Your task to perform on an android device: open the mobile data screen to see how much data has been used Image 0: 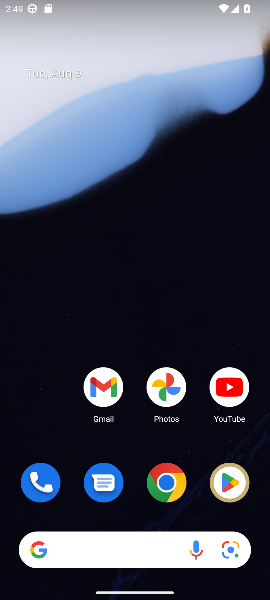
Step 0: drag from (137, 439) to (137, 97)
Your task to perform on an android device: open the mobile data screen to see how much data has been used Image 1: 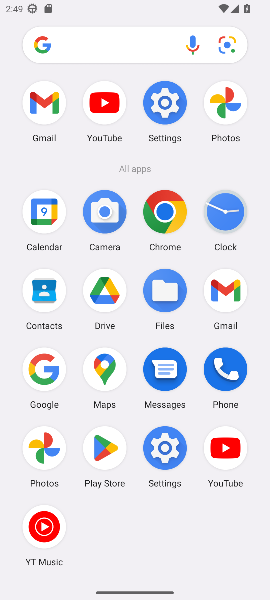
Step 1: click (175, 114)
Your task to perform on an android device: open the mobile data screen to see how much data has been used Image 2: 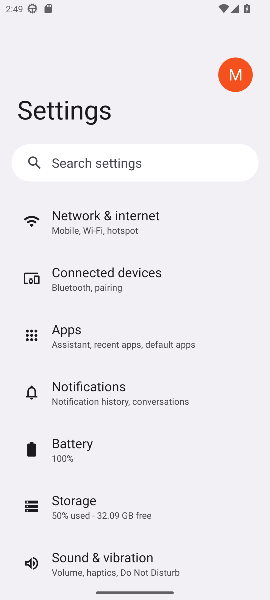
Step 2: click (178, 217)
Your task to perform on an android device: open the mobile data screen to see how much data has been used Image 3: 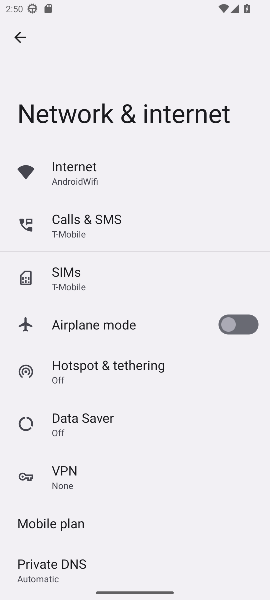
Step 3: click (84, 177)
Your task to perform on an android device: open the mobile data screen to see how much data has been used Image 4: 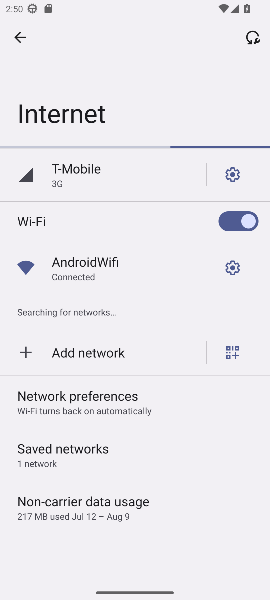
Step 4: click (117, 171)
Your task to perform on an android device: open the mobile data screen to see how much data has been used Image 5: 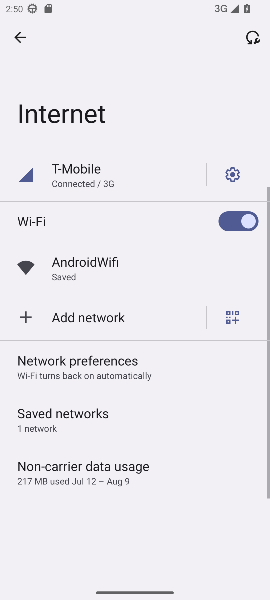
Step 5: click (133, 475)
Your task to perform on an android device: open the mobile data screen to see how much data has been used Image 6: 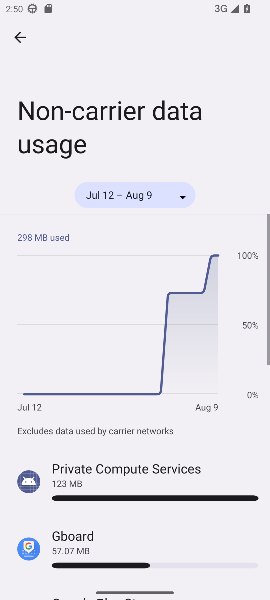
Step 6: task complete